Your task to perform on an android device: Open the stopwatch Image 0: 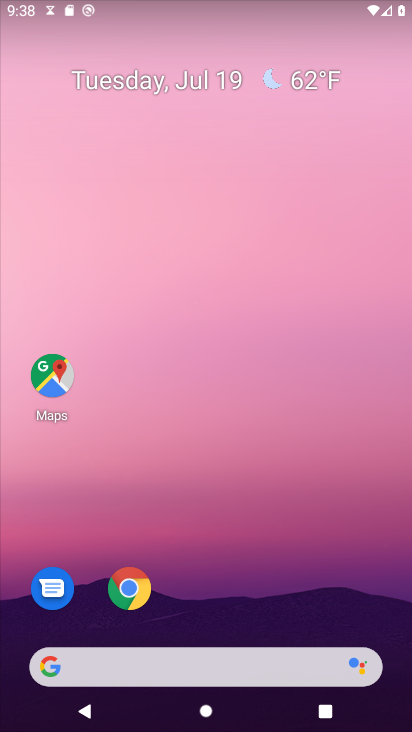
Step 0: drag from (176, 631) to (239, 48)
Your task to perform on an android device: Open the stopwatch Image 1: 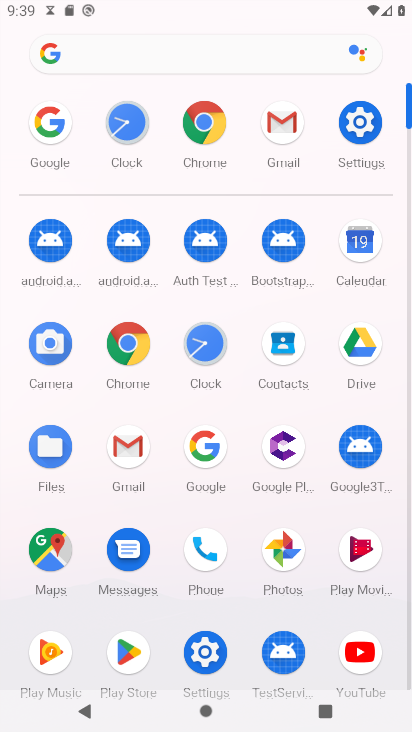
Step 1: click (209, 343)
Your task to perform on an android device: Open the stopwatch Image 2: 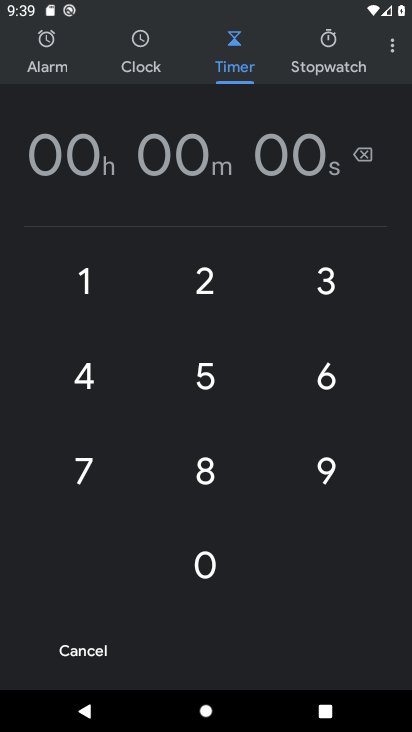
Step 2: click (321, 59)
Your task to perform on an android device: Open the stopwatch Image 3: 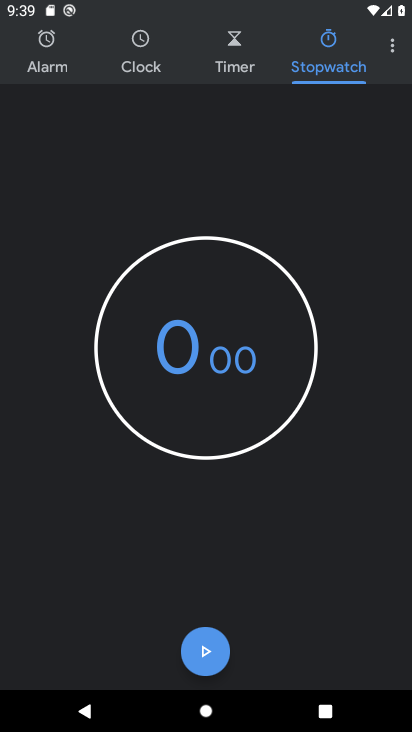
Step 3: task complete